Your task to perform on an android device: open device folders in google photos Image 0: 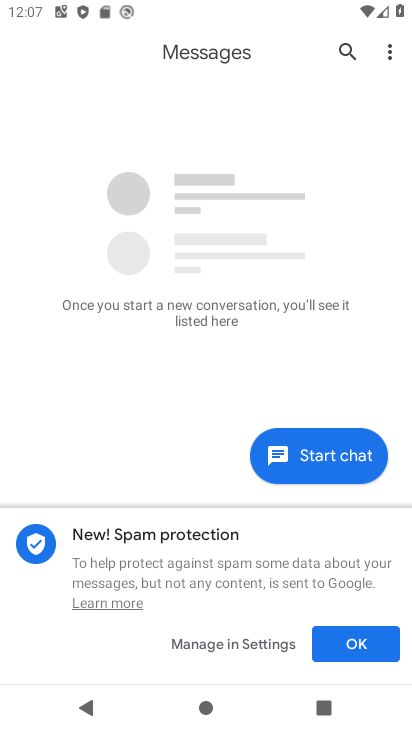
Step 0: press home button
Your task to perform on an android device: open device folders in google photos Image 1: 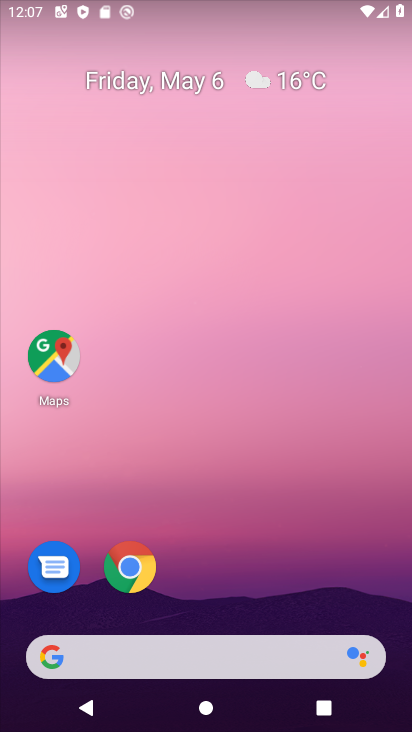
Step 1: drag from (253, 599) to (198, 87)
Your task to perform on an android device: open device folders in google photos Image 2: 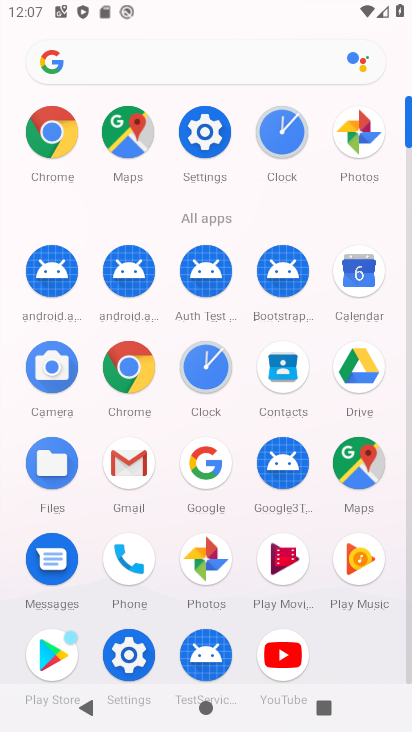
Step 2: click (213, 554)
Your task to perform on an android device: open device folders in google photos Image 3: 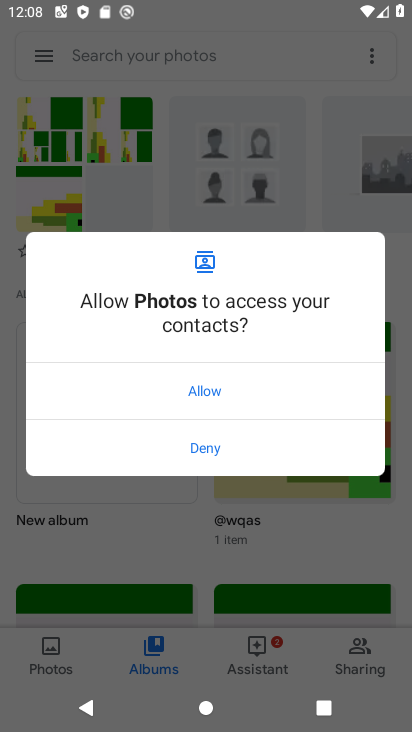
Step 3: click (209, 388)
Your task to perform on an android device: open device folders in google photos Image 4: 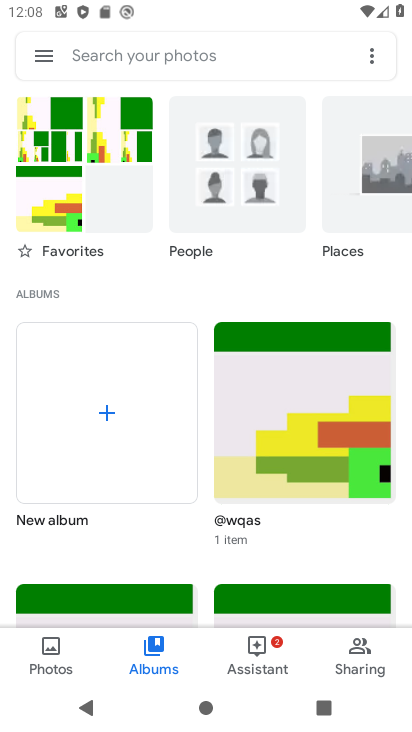
Step 4: click (54, 61)
Your task to perform on an android device: open device folders in google photos Image 5: 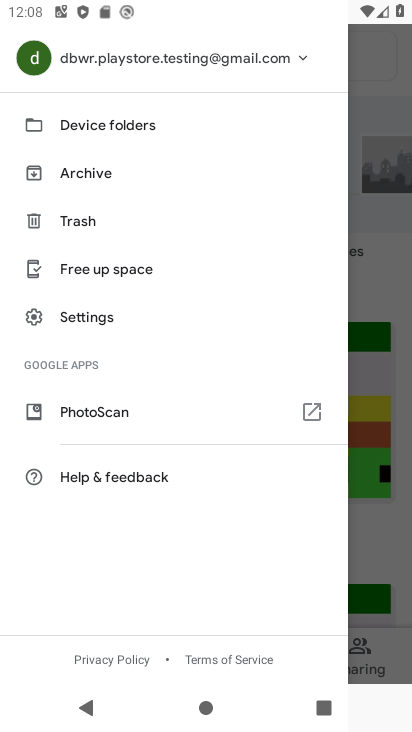
Step 5: click (98, 123)
Your task to perform on an android device: open device folders in google photos Image 6: 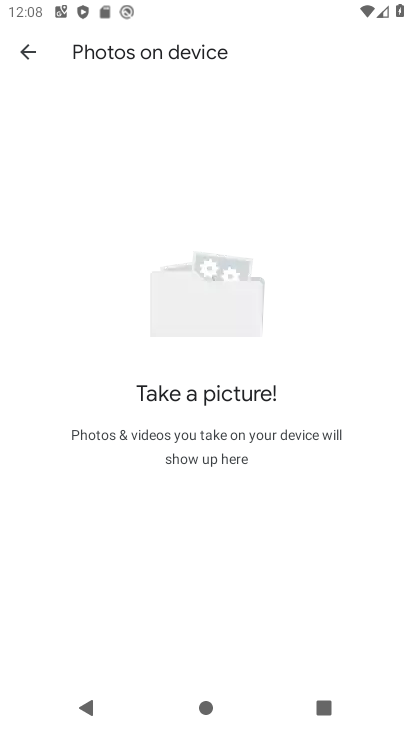
Step 6: task complete